Your task to perform on an android device: Show me productivity apps on the Play Store Image 0: 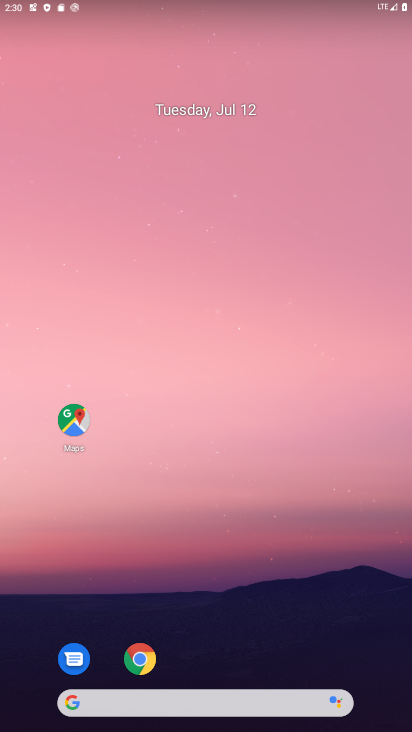
Step 0: click (203, 726)
Your task to perform on an android device: Show me productivity apps on the Play Store Image 1: 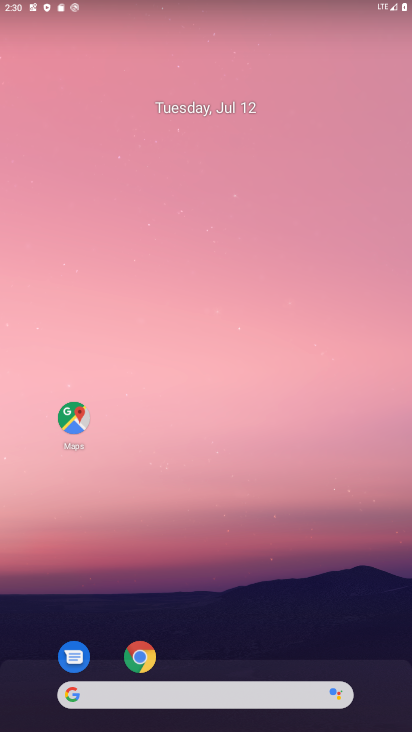
Step 1: drag from (199, 145) to (199, 106)
Your task to perform on an android device: Show me productivity apps on the Play Store Image 2: 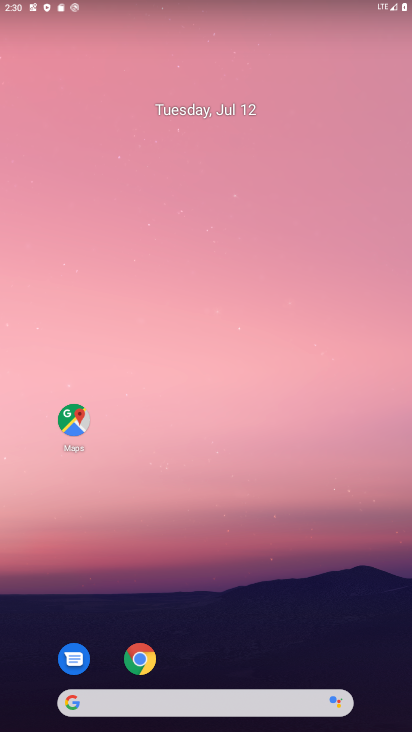
Step 2: drag from (225, 725) to (228, 674)
Your task to perform on an android device: Show me productivity apps on the Play Store Image 3: 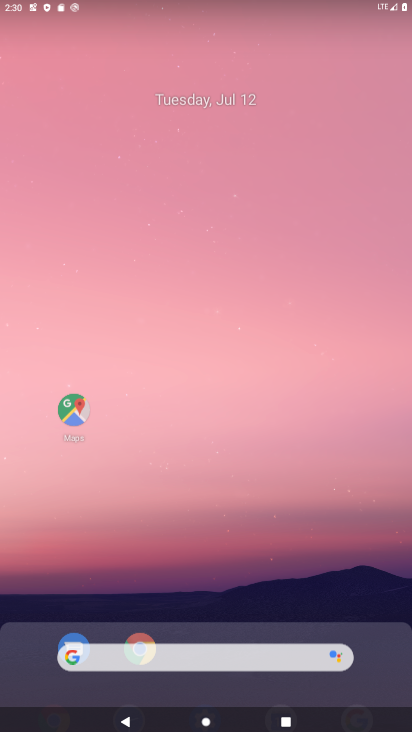
Step 3: drag from (225, 139) to (225, 94)
Your task to perform on an android device: Show me productivity apps on the Play Store Image 4: 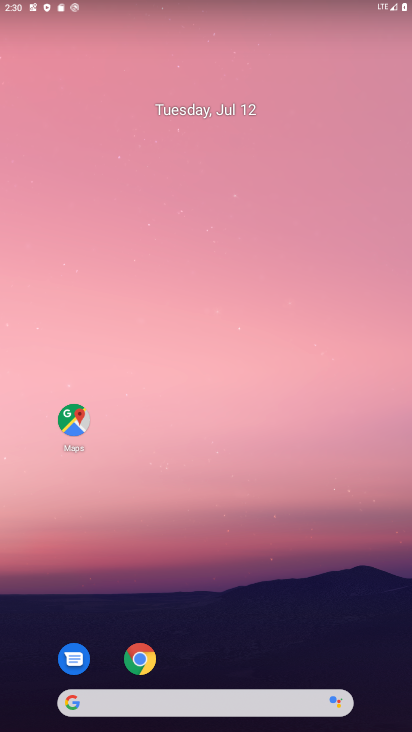
Step 4: click (197, 723)
Your task to perform on an android device: Show me productivity apps on the Play Store Image 5: 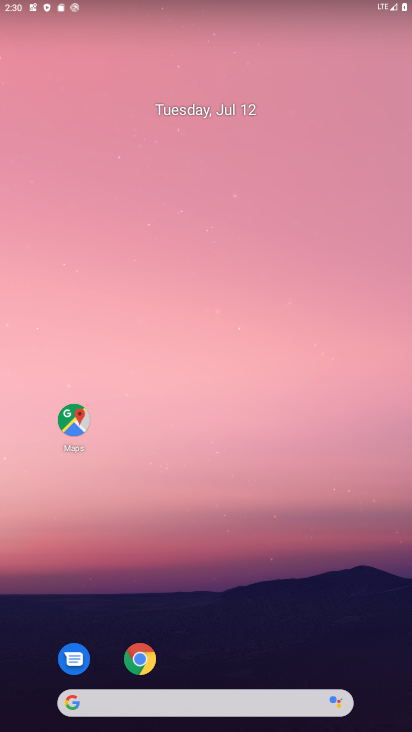
Step 5: drag from (197, 320) to (198, 138)
Your task to perform on an android device: Show me productivity apps on the Play Store Image 6: 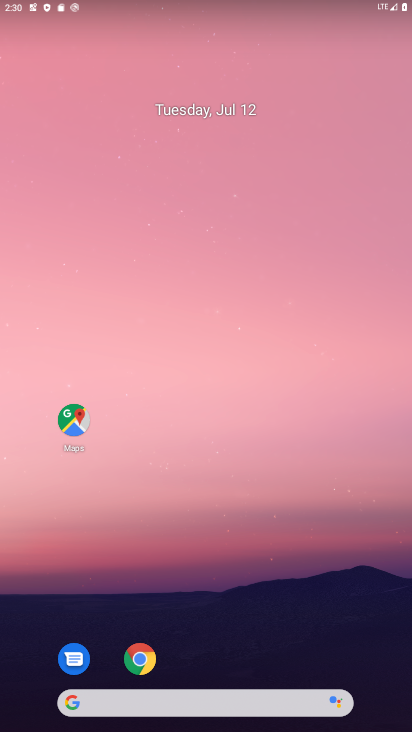
Step 6: click (204, 730)
Your task to perform on an android device: Show me productivity apps on the Play Store Image 7: 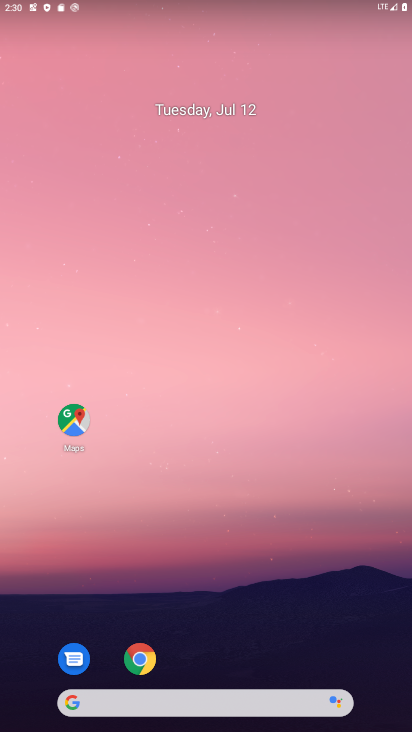
Step 7: drag from (203, 66) to (203, 20)
Your task to perform on an android device: Show me productivity apps on the Play Store Image 8: 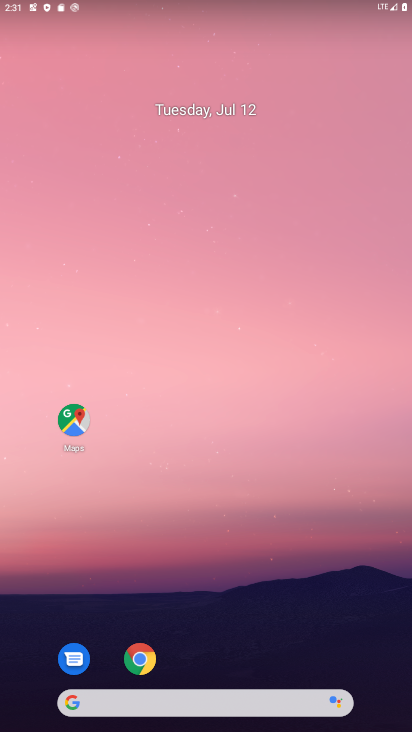
Step 8: click (289, 730)
Your task to perform on an android device: Show me productivity apps on the Play Store Image 9: 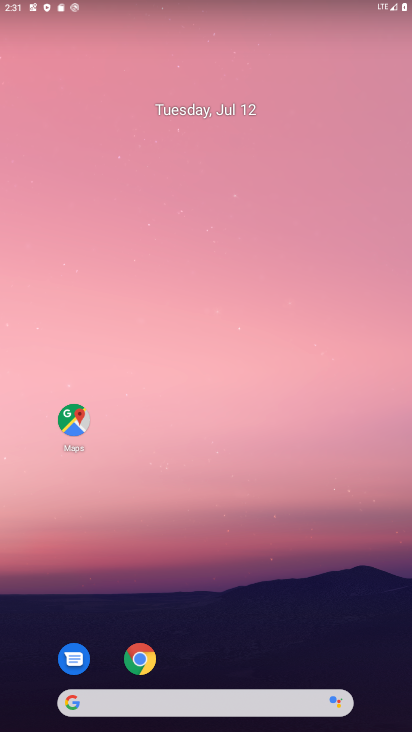
Step 9: click (295, 41)
Your task to perform on an android device: Show me productivity apps on the Play Store Image 10: 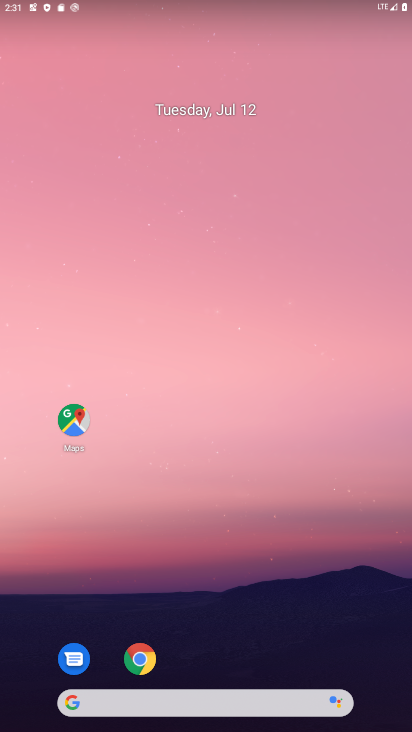
Step 10: click (359, 720)
Your task to perform on an android device: Show me productivity apps on the Play Store Image 11: 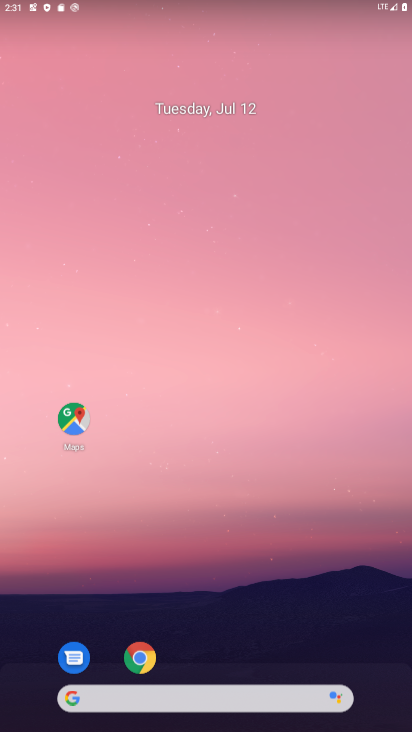
Step 11: click (315, 202)
Your task to perform on an android device: Show me productivity apps on the Play Store Image 12: 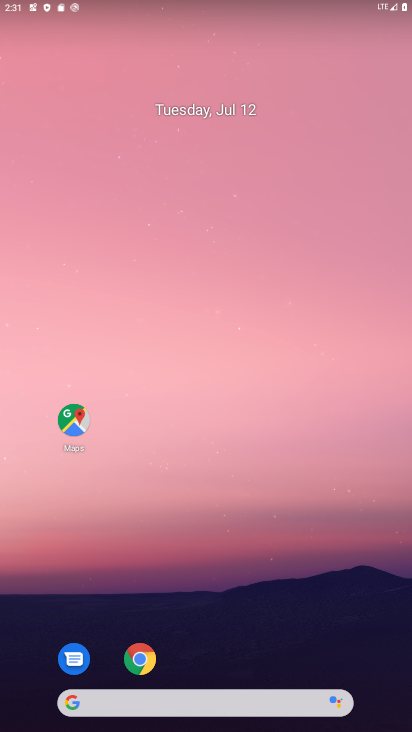
Step 12: drag from (369, 638) to (319, 170)
Your task to perform on an android device: Show me productivity apps on the Play Store Image 13: 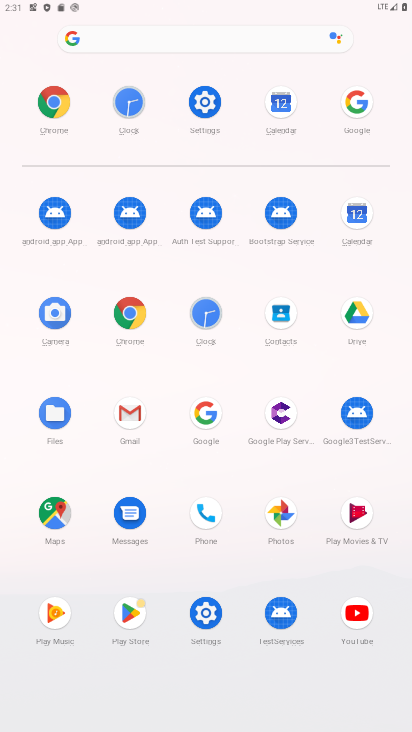
Step 13: click (122, 613)
Your task to perform on an android device: Show me productivity apps on the Play Store Image 14: 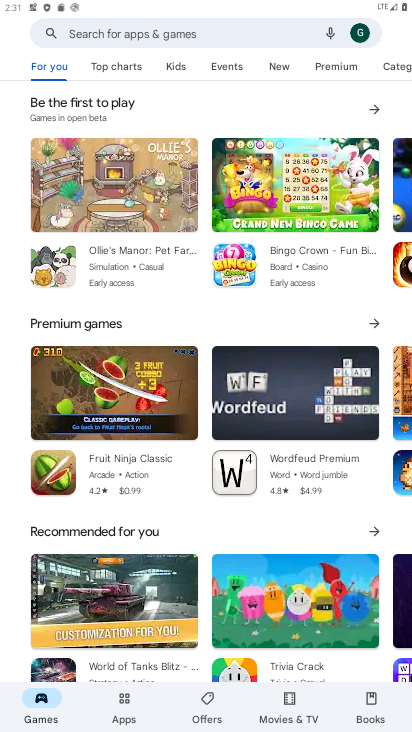
Step 14: click (128, 701)
Your task to perform on an android device: Show me productivity apps on the Play Store Image 15: 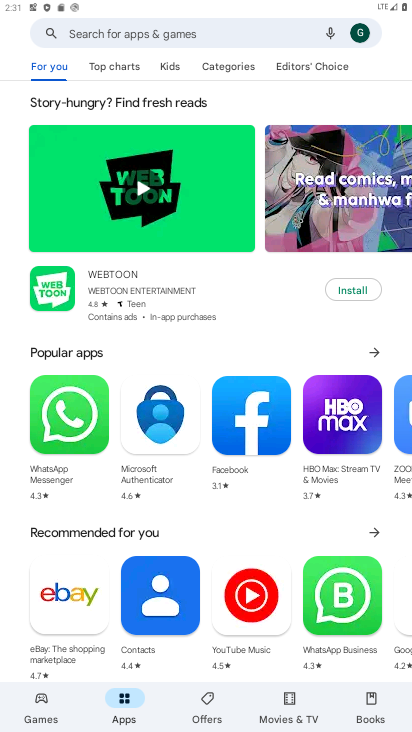
Step 15: click (221, 61)
Your task to perform on an android device: Show me productivity apps on the Play Store Image 16: 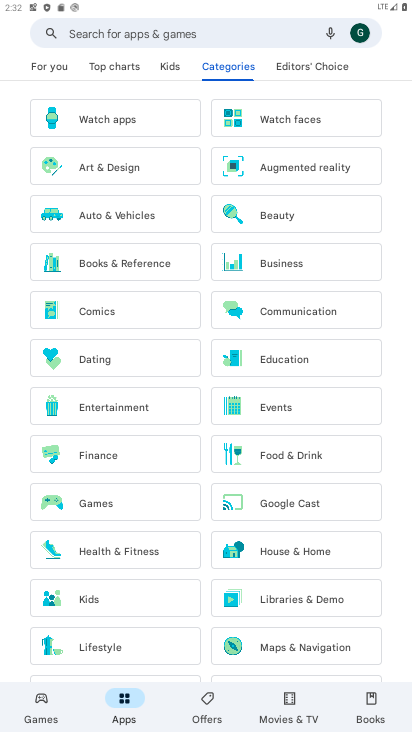
Step 16: drag from (196, 657) to (196, 277)
Your task to perform on an android device: Show me productivity apps on the Play Store Image 17: 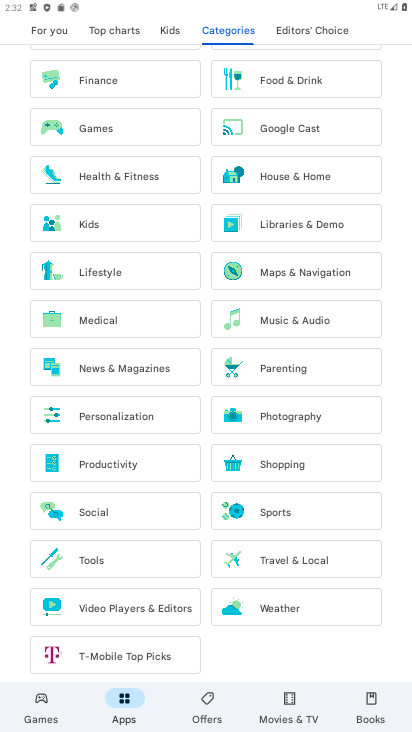
Step 17: click (121, 460)
Your task to perform on an android device: Show me productivity apps on the Play Store Image 18: 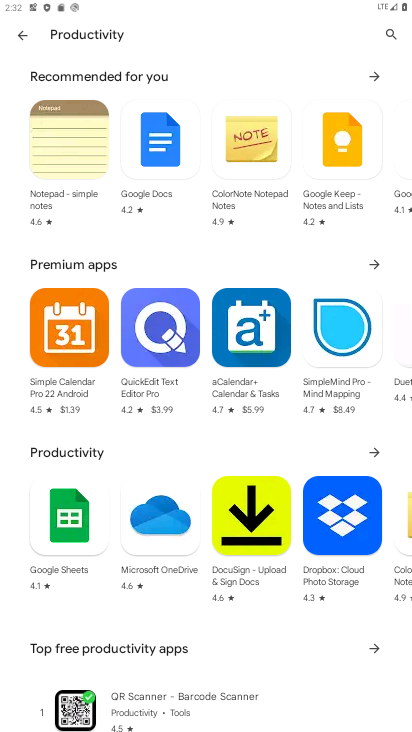
Step 18: task complete